Your task to perform on an android device: Google the capital of Canada Image 0: 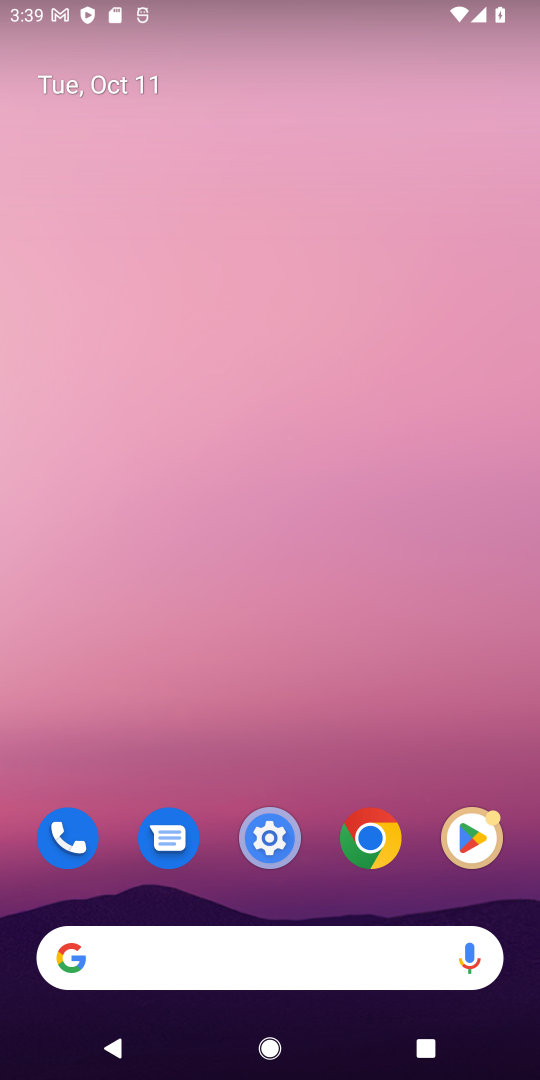
Step 0: click (368, 224)
Your task to perform on an android device: Google the capital of Canada Image 1: 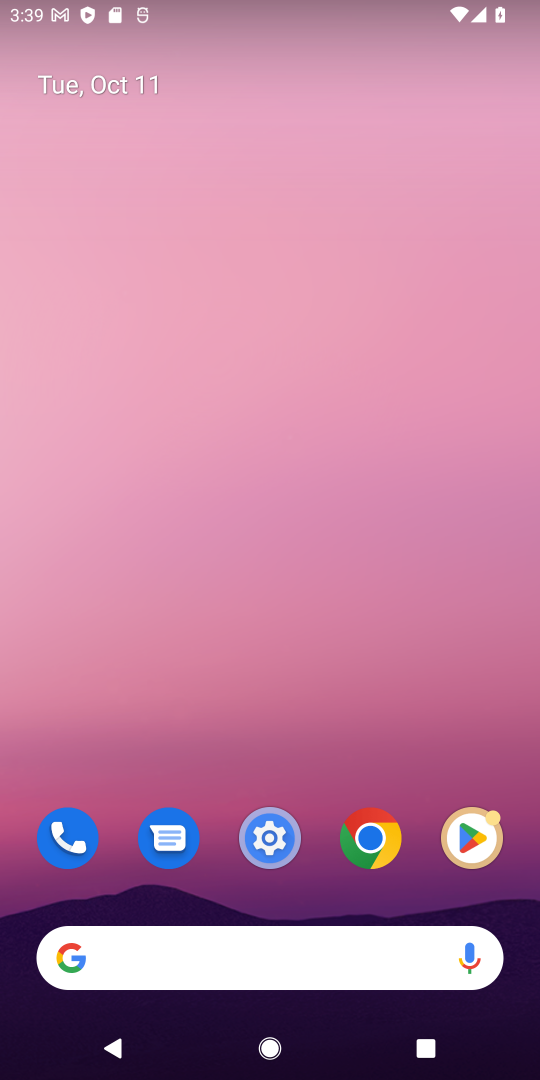
Step 1: click (218, 934)
Your task to perform on an android device: Google the capital of Canada Image 2: 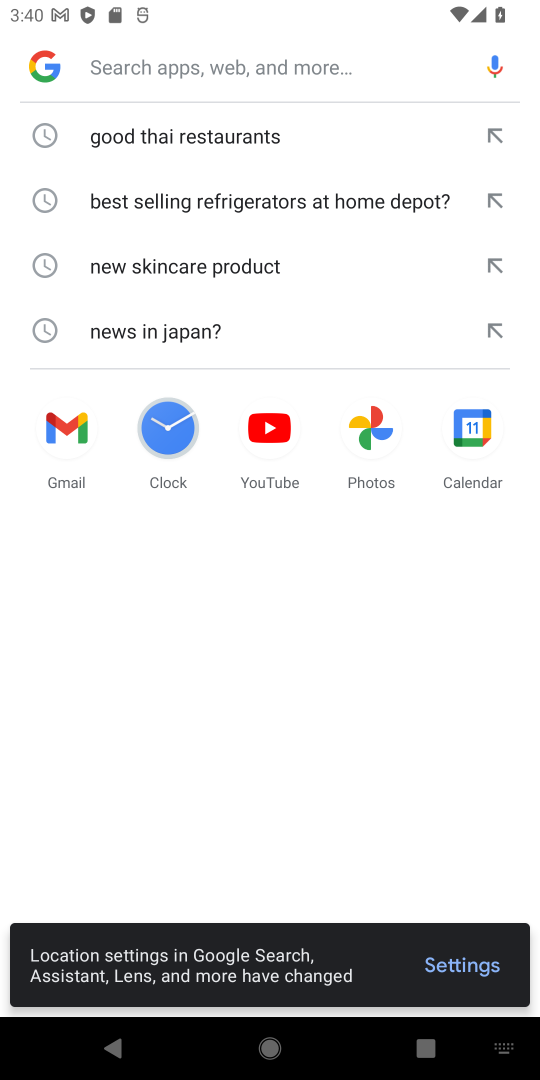
Step 2: click (264, 81)
Your task to perform on an android device: Google the capital of Canada Image 3: 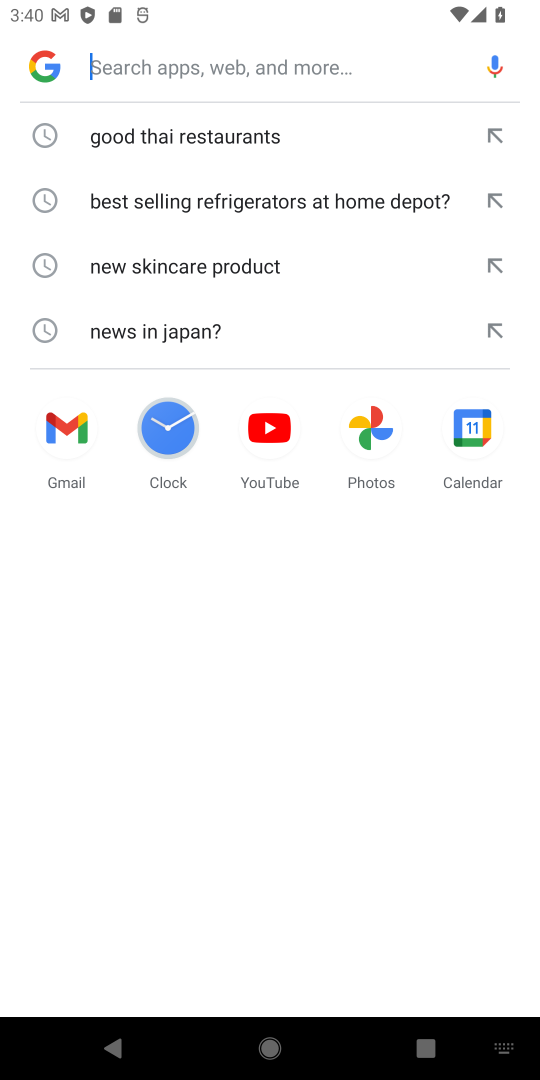
Step 3: type "capital of Canada"
Your task to perform on an android device: Google the capital of Canada Image 4: 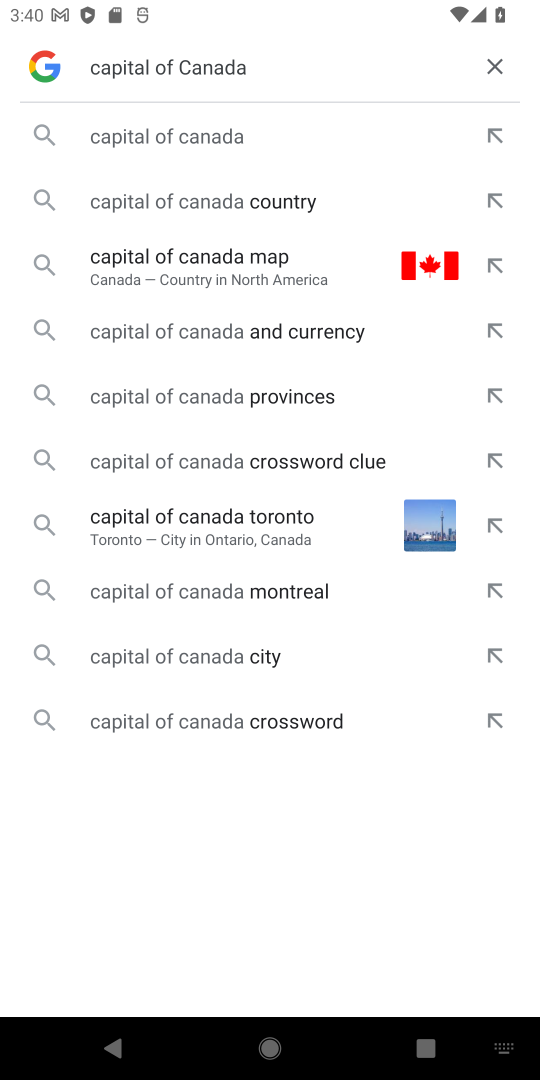
Step 4: click (196, 129)
Your task to perform on an android device: Google the capital of Canada Image 5: 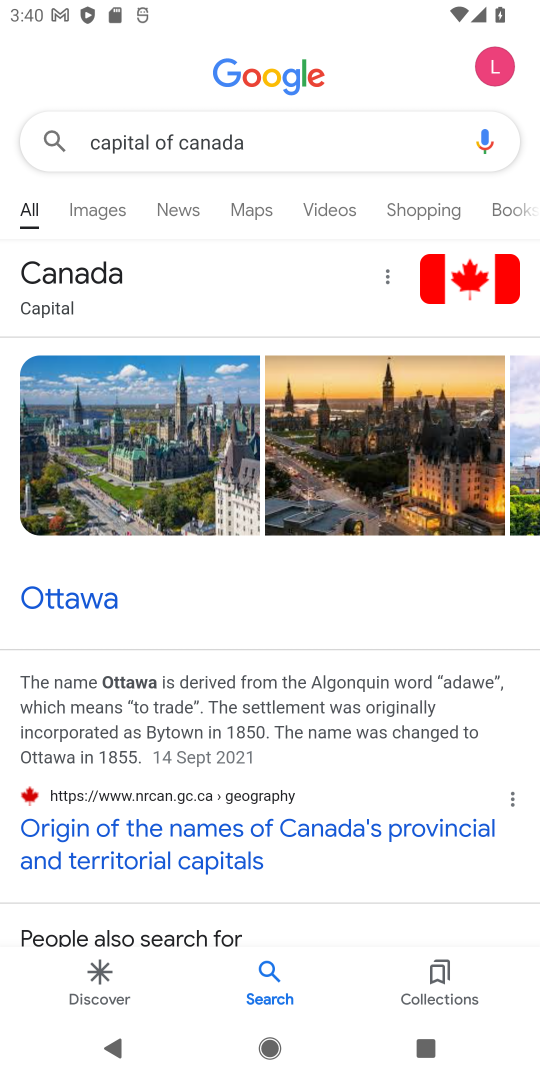
Step 5: task complete